Your task to perform on an android device: open sync settings in chrome Image 0: 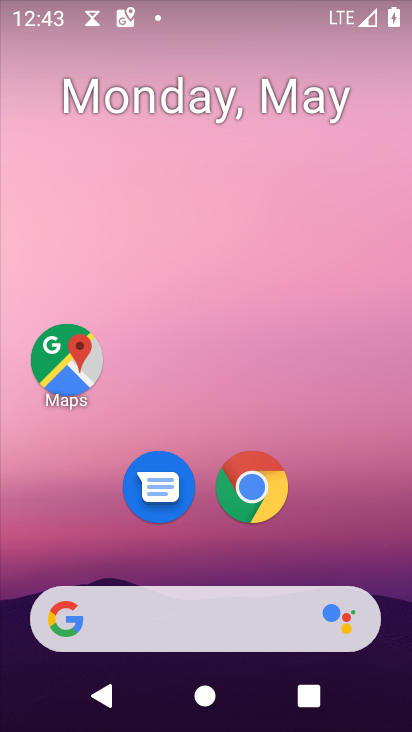
Step 0: click (255, 478)
Your task to perform on an android device: open sync settings in chrome Image 1: 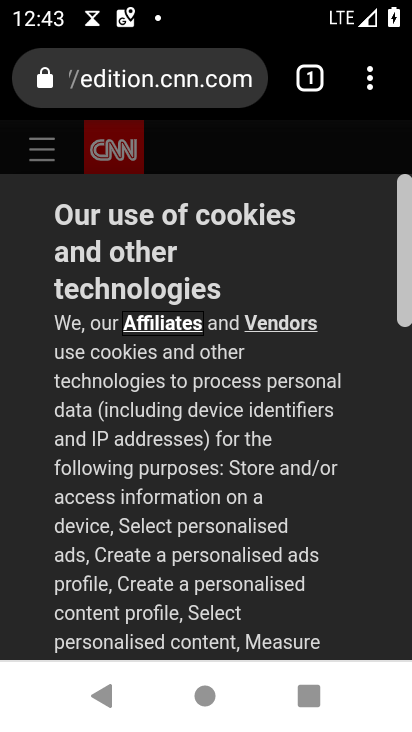
Step 1: click (369, 69)
Your task to perform on an android device: open sync settings in chrome Image 2: 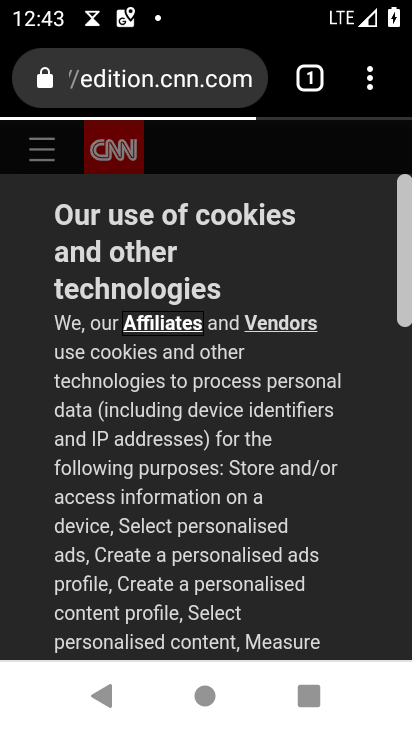
Step 2: click (369, 69)
Your task to perform on an android device: open sync settings in chrome Image 3: 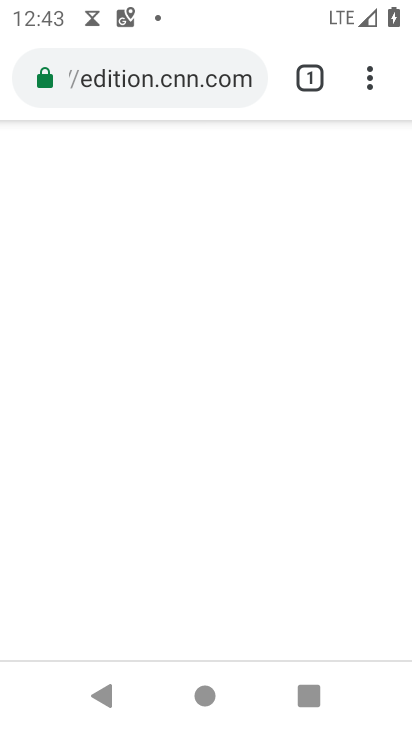
Step 3: click (379, 83)
Your task to perform on an android device: open sync settings in chrome Image 4: 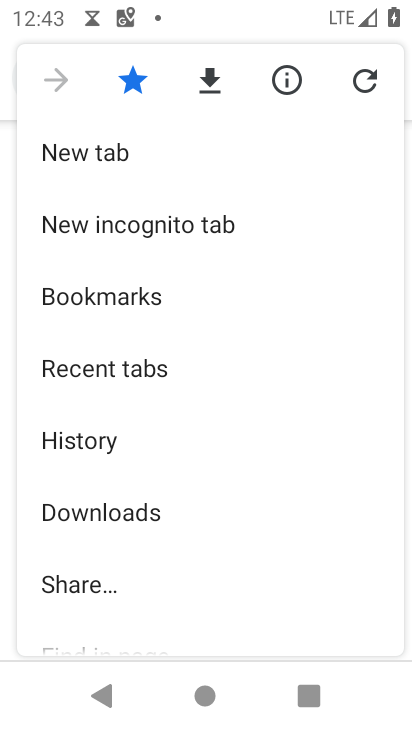
Step 4: drag from (127, 591) to (132, 188)
Your task to perform on an android device: open sync settings in chrome Image 5: 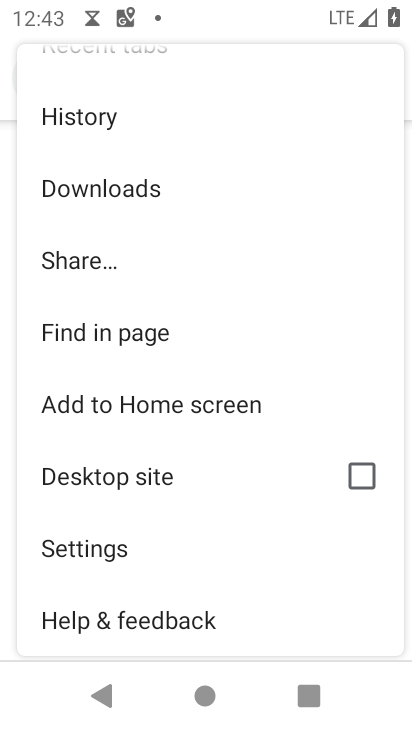
Step 5: click (126, 541)
Your task to perform on an android device: open sync settings in chrome Image 6: 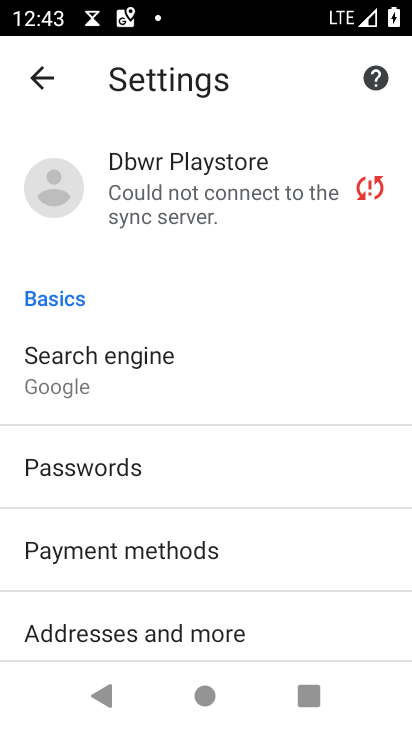
Step 6: click (158, 216)
Your task to perform on an android device: open sync settings in chrome Image 7: 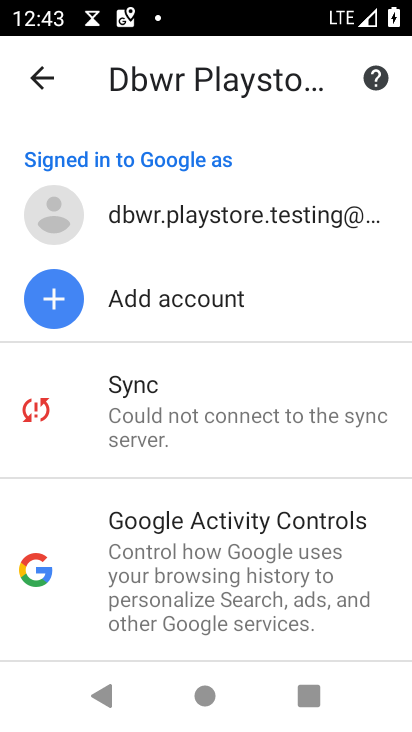
Step 7: click (172, 414)
Your task to perform on an android device: open sync settings in chrome Image 8: 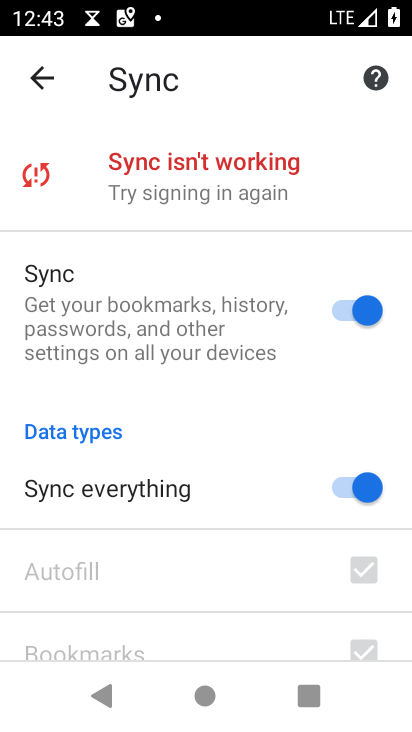
Step 8: task complete